Your task to perform on an android device: install app "Nova Launcher" Image 0: 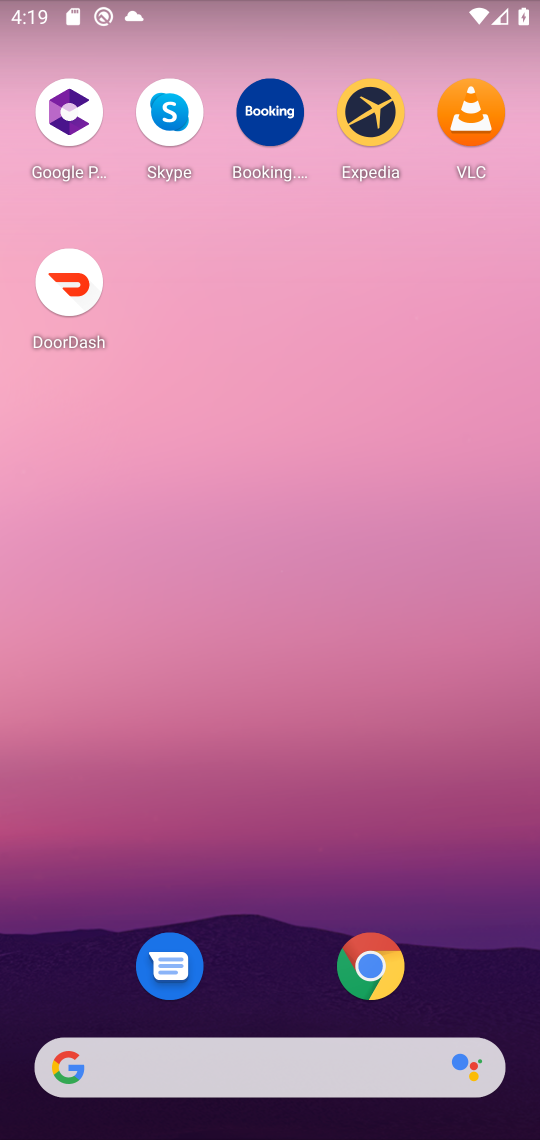
Step 0: drag from (232, 959) to (191, 185)
Your task to perform on an android device: install app "Nova Launcher" Image 1: 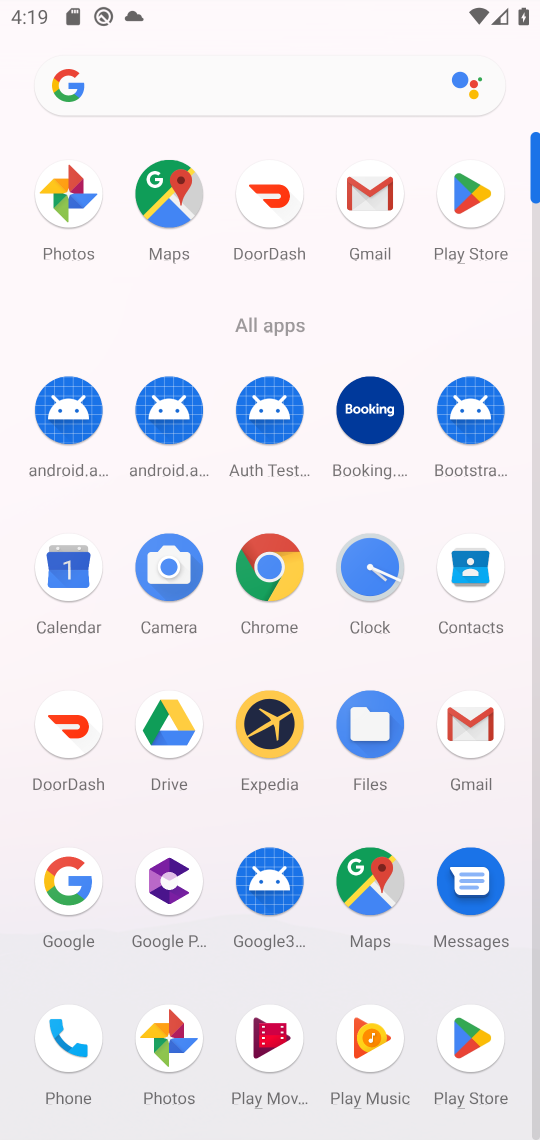
Step 1: click (451, 199)
Your task to perform on an android device: install app "Nova Launcher" Image 2: 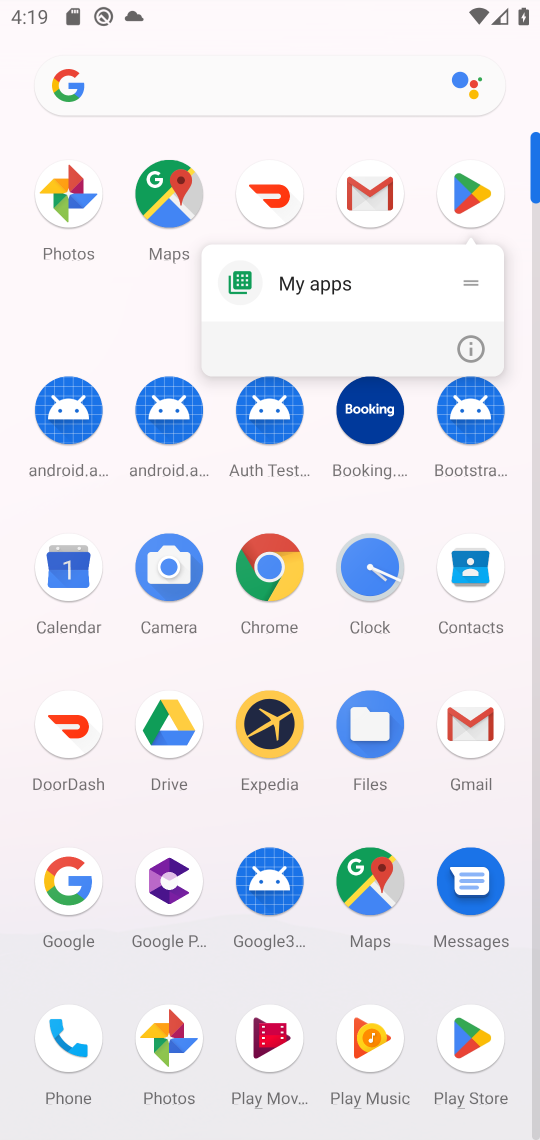
Step 2: click (462, 190)
Your task to perform on an android device: install app "Nova Launcher" Image 3: 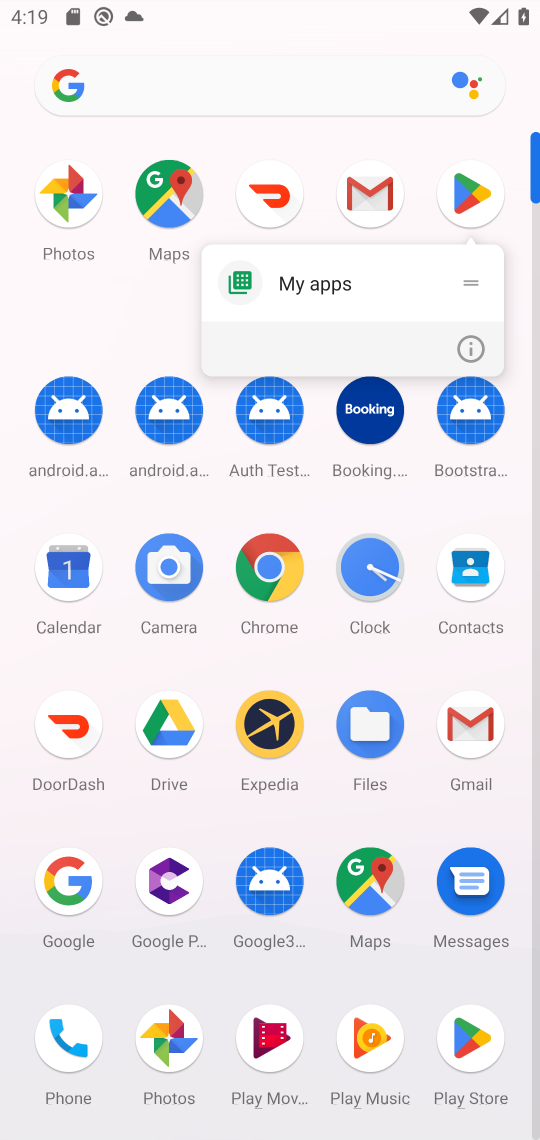
Step 3: click (468, 197)
Your task to perform on an android device: install app "Nova Launcher" Image 4: 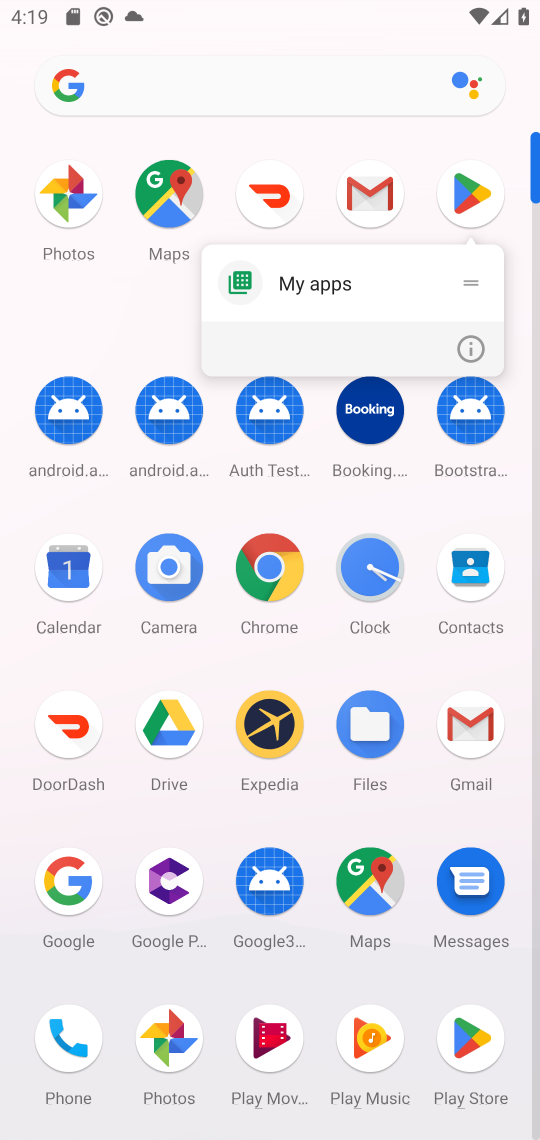
Step 4: click (487, 190)
Your task to perform on an android device: install app "Nova Launcher" Image 5: 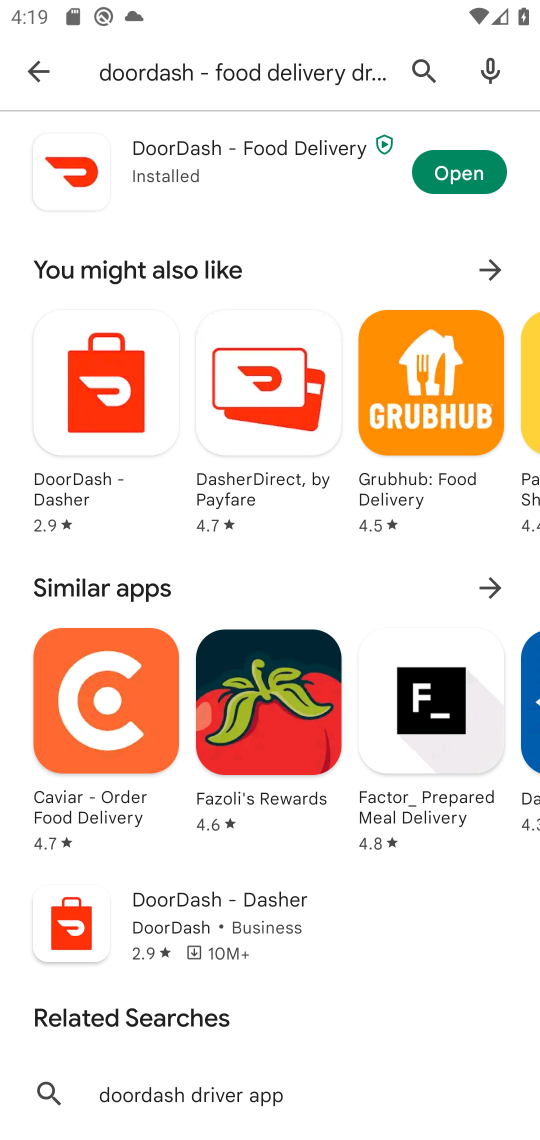
Step 5: click (412, 59)
Your task to perform on an android device: install app "Nova Launcher" Image 6: 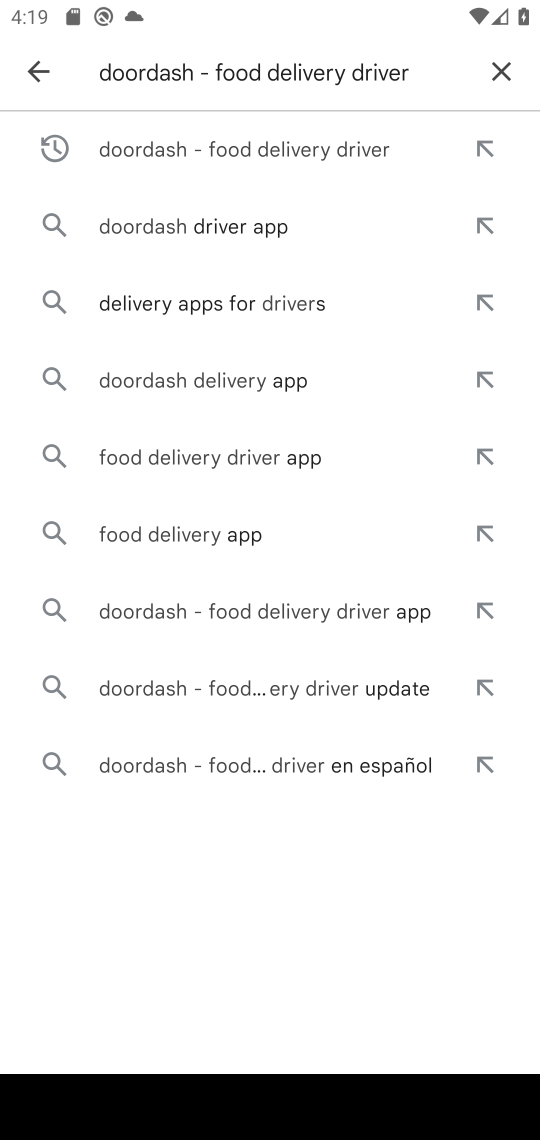
Step 6: click (514, 67)
Your task to perform on an android device: install app "Nova Launcher" Image 7: 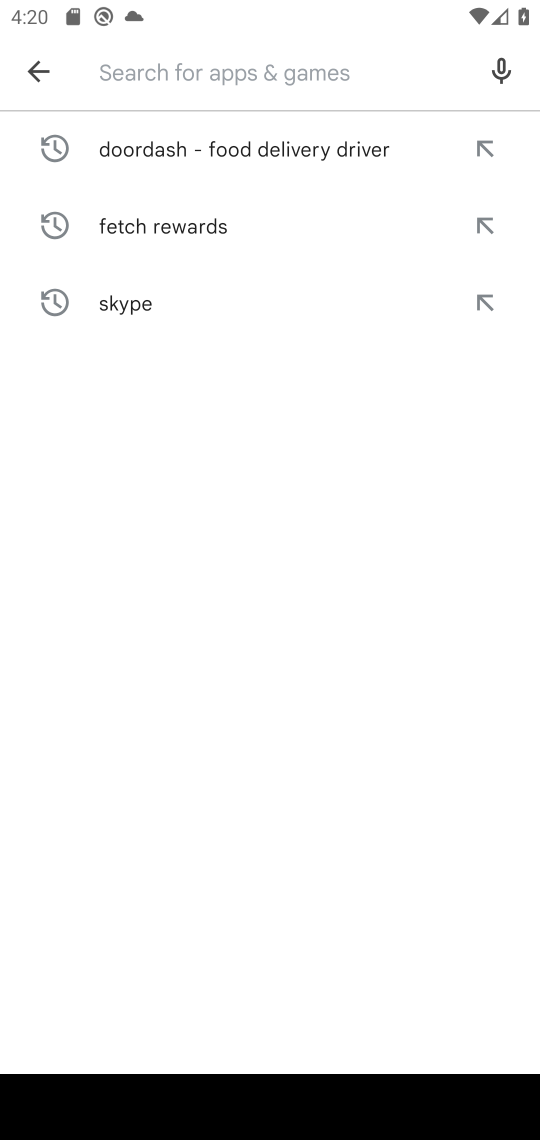
Step 7: click (191, 75)
Your task to perform on an android device: install app "Nova Launcher" Image 8: 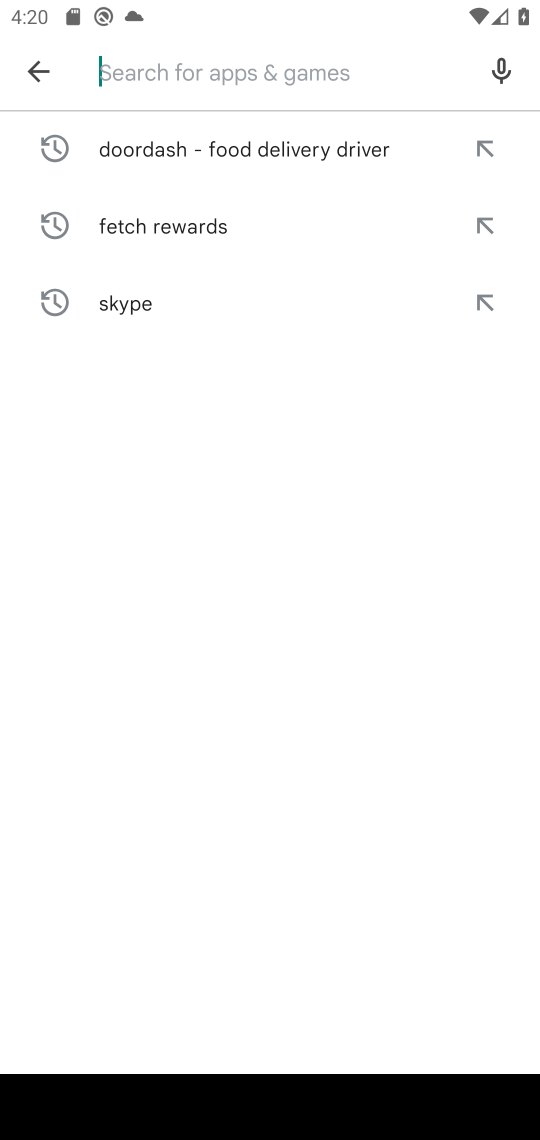
Step 8: click (229, 53)
Your task to perform on an android device: install app "Nova Launcher" Image 9: 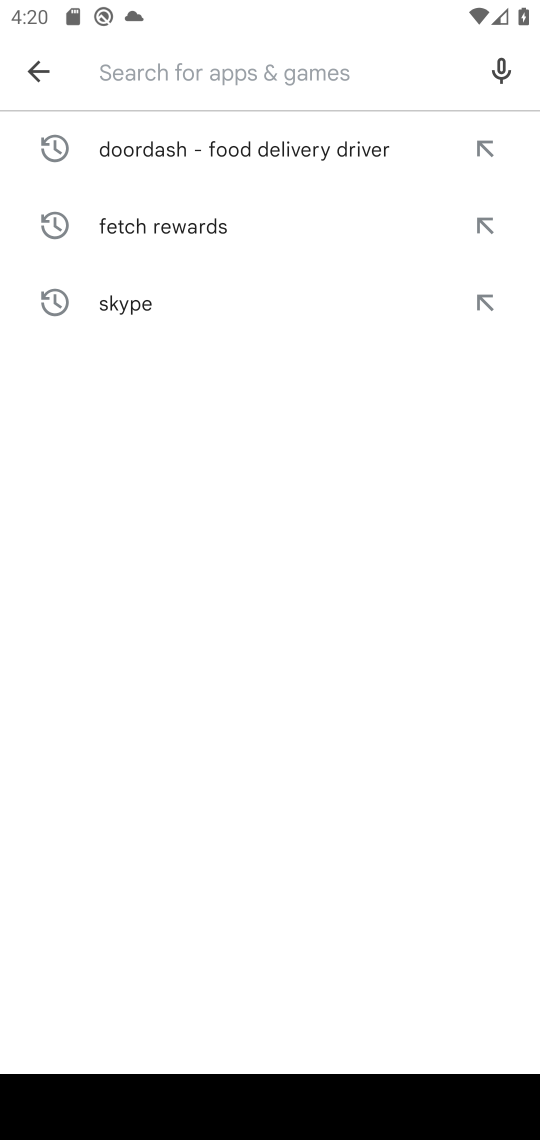
Step 9: type "Nova Launcher"
Your task to perform on an android device: install app "Nova Launcher" Image 10: 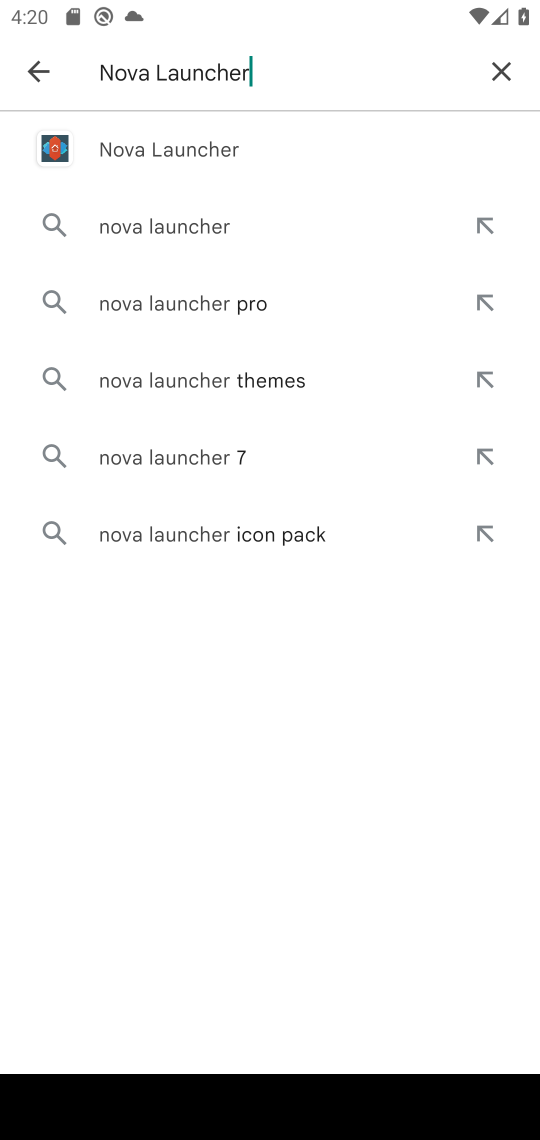
Step 10: click (150, 136)
Your task to perform on an android device: install app "Nova Launcher" Image 11: 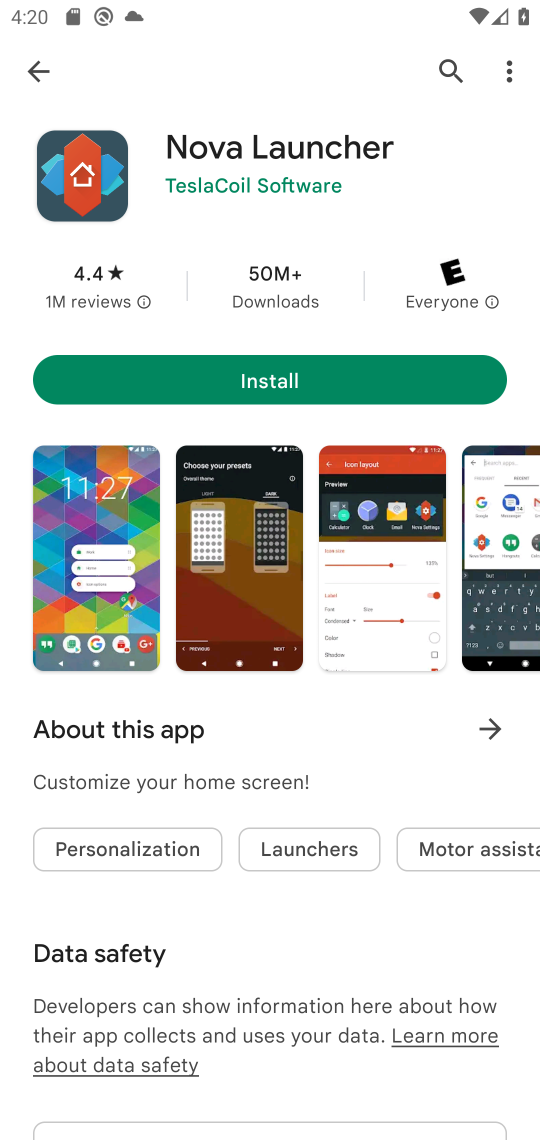
Step 11: click (265, 378)
Your task to perform on an android device: install app "Nova Launcher" Image 12: 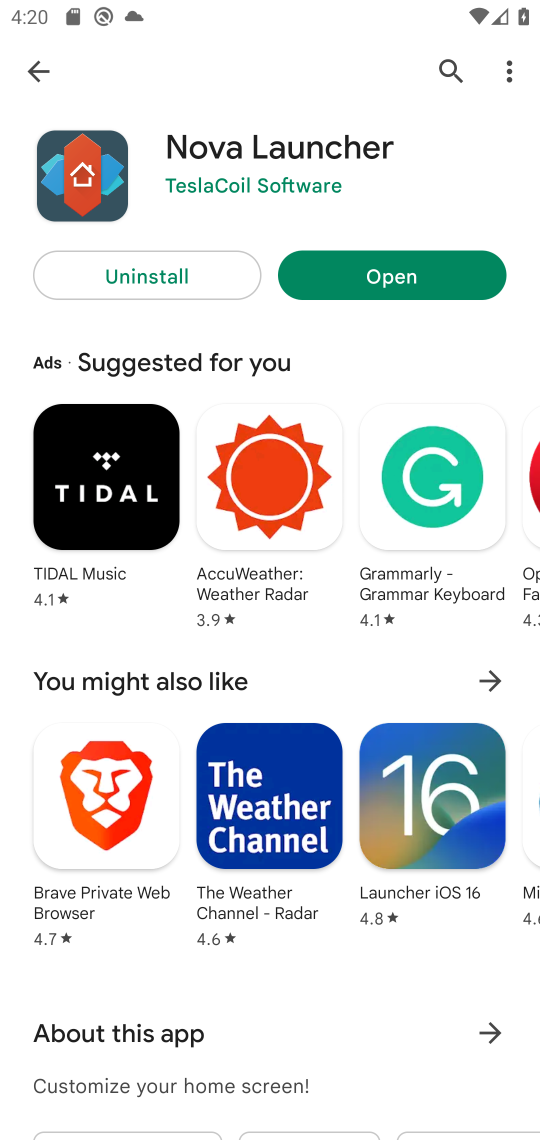
Step 12: click (391, 281)
Your task to perform on an android device: install app "Nova Launcher" Image 13: 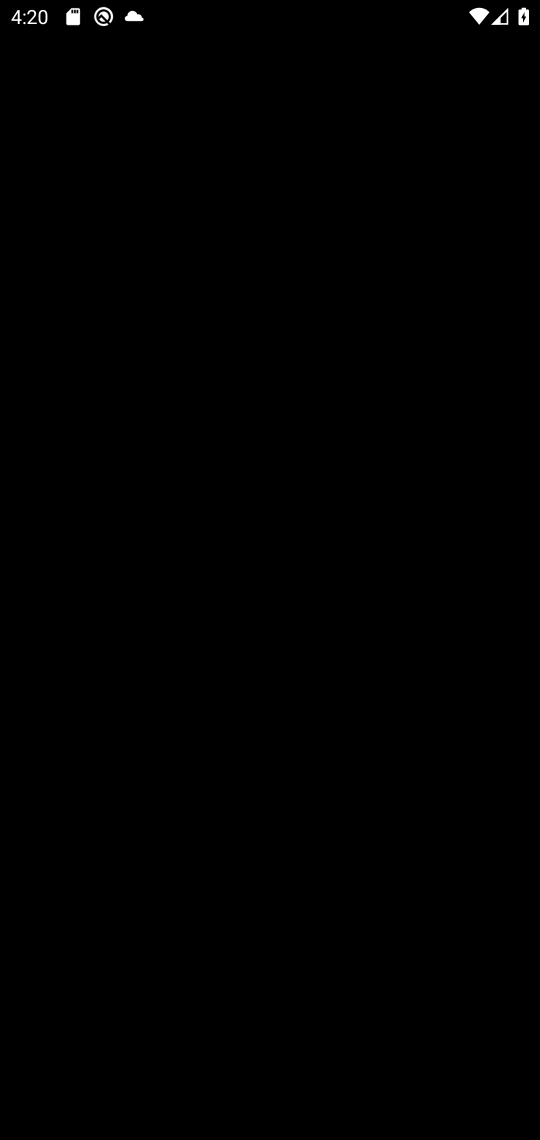
Step 13: task complete